Your task to perform on an android device: turn on javascript in the chrome app Image 0: 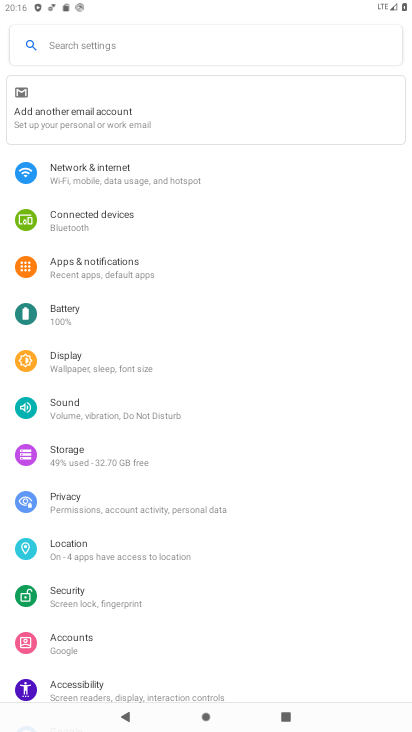
Step 0: press home button
Your task to perform on an android device: turn on javascript in the chrome app Image 1: 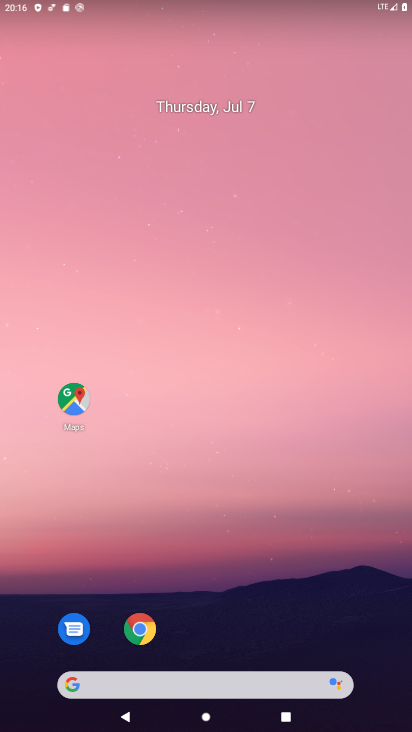
Step 1: drag from (301, 687) to (310, 5)
Your task to perform on an android device: turn on javascript in the chrome app Image 2: 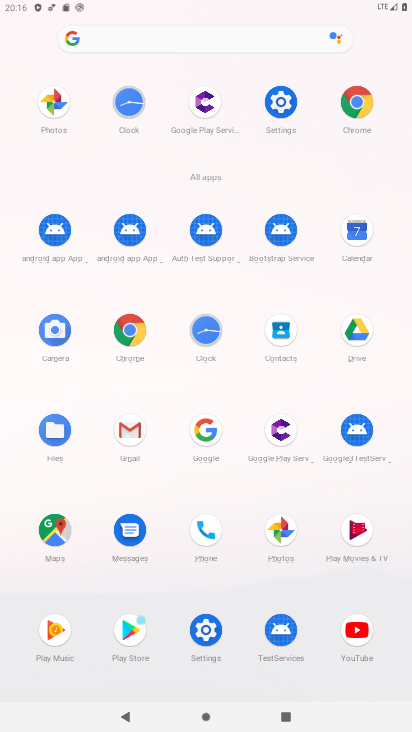
Step 2: click (119, 323)
Your task to perform on an android device: turn on javascript in the chrome app Image 3: 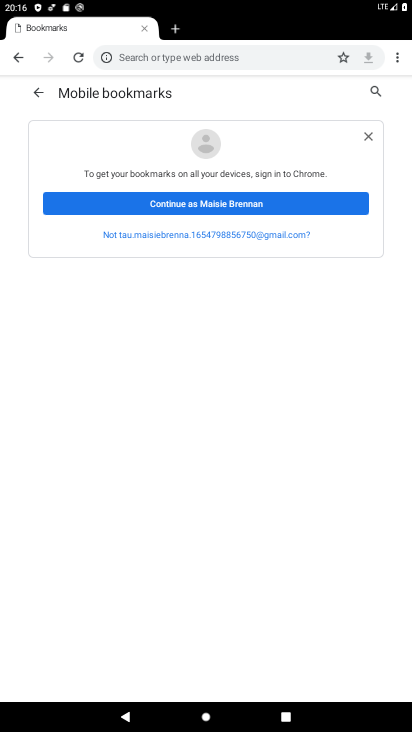
Step 3: press home button
Your task to perform on an android device: turn on javascript in the chrome app Image 4: 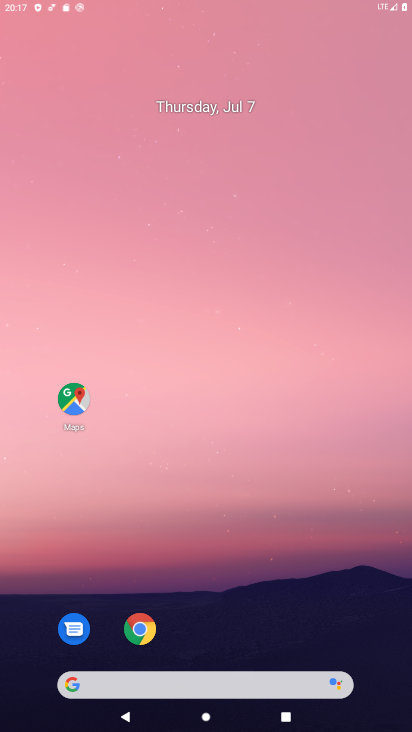
Step 4: drag from (307, 664) to (303, 2)
Your task to perform on an android device: turn on javascript in the chrome app Image 5: 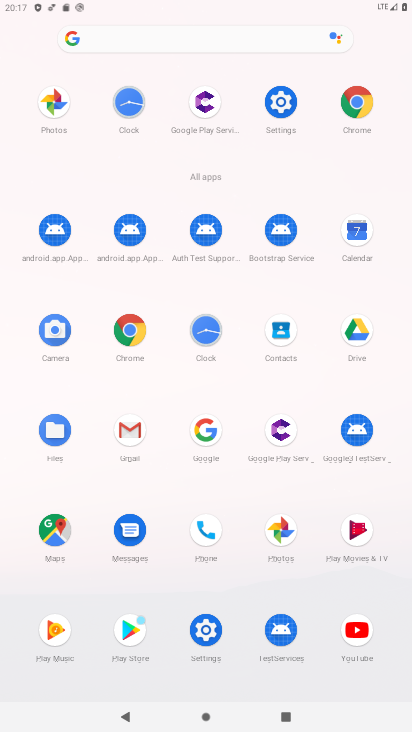
Step 5: click (137, 325)
Your task to perform on an android device: turn on javascript in the chrome app Image 6: 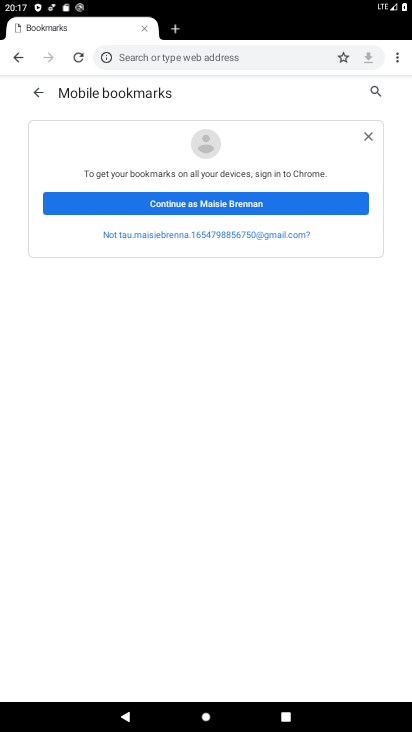
Step 6: drag from (402, 54) to (292, 267)
Your task to perform on an android device: turn on javascript in the chrome app Image 7: 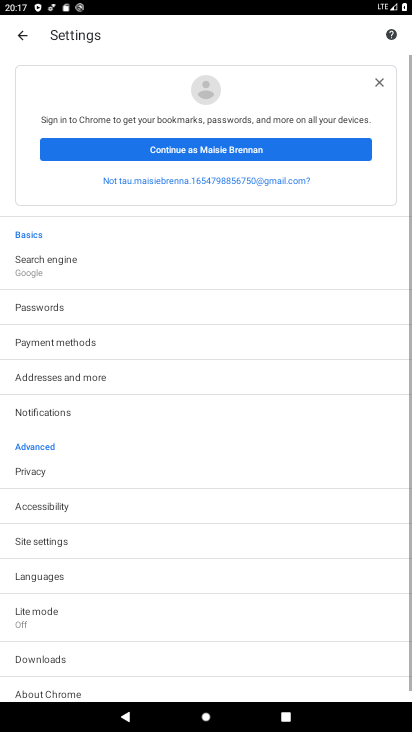
Step 7: drag from (265, 574) to (252, 201)
Your task to perform on an android device: turn on javascript in the chrome app Image 8: 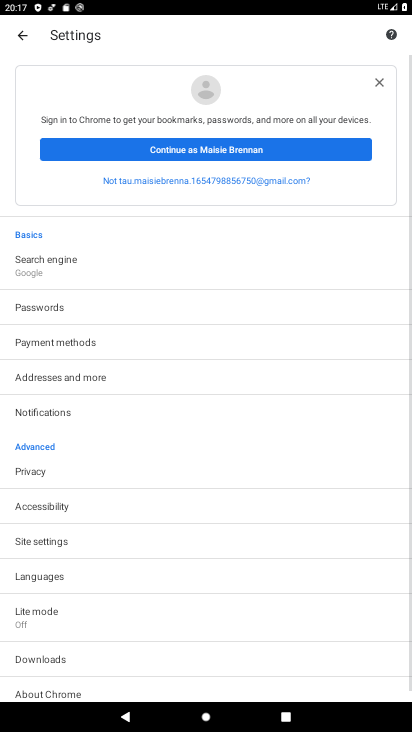
Step 8: click (75, 549)
Your task to perform on an android device: turn on javascript in the chrome app Image 9: 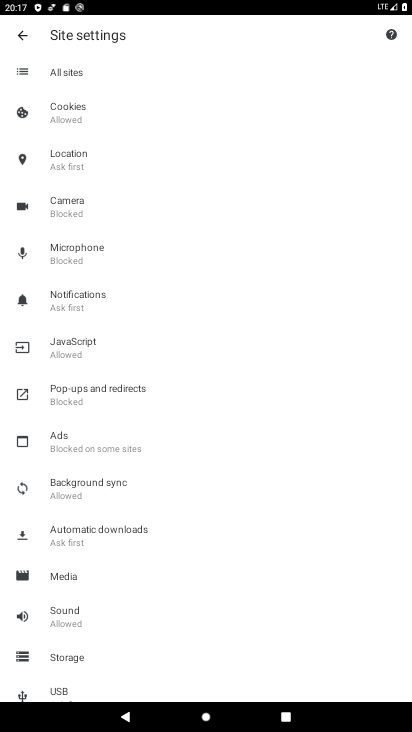
Step 9: click (103, 349)
Your task to perform on an android device: turn on javascript in the chrome app Image 10: 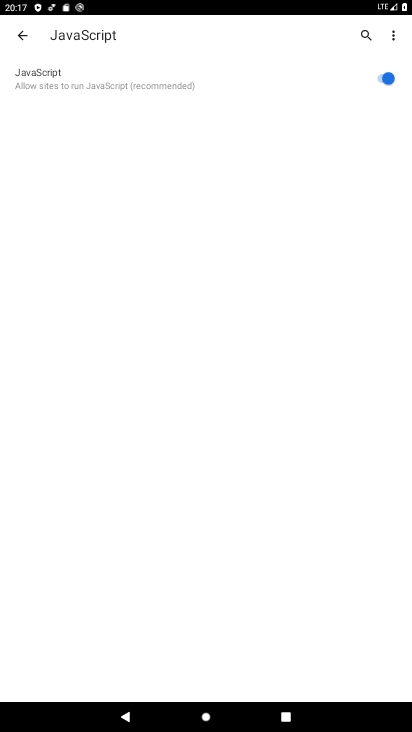
Step 10: task complete